Your task to perform on an android device: Open wifi settings Image 0: 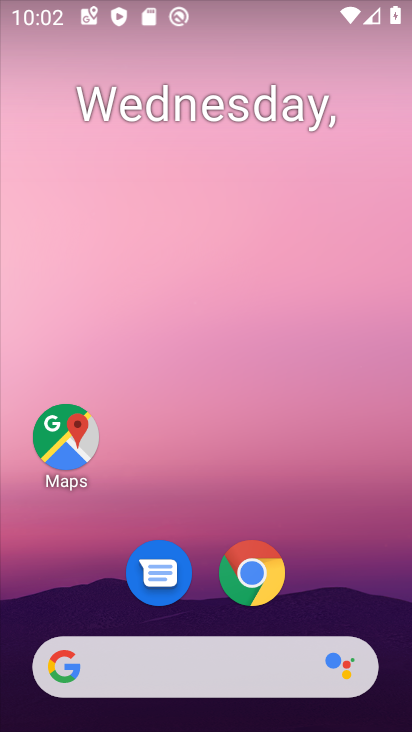
Step 0: drag from (345, 577) to (332, 207)
Your task to perform on an android device: Open wifi settings Image 1: 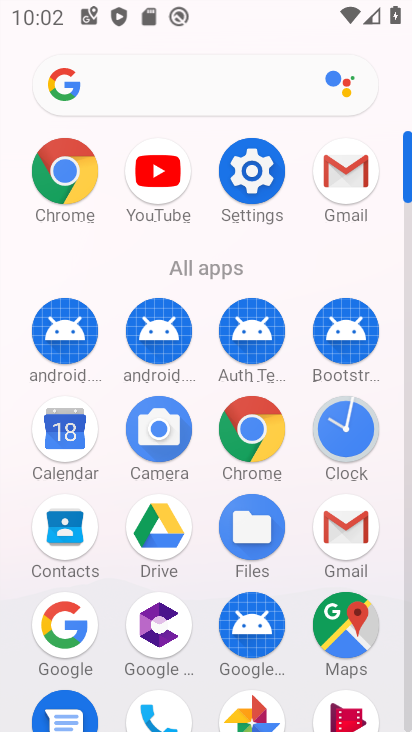
Step 1: click (265, 187)
Your task to perform on an android device: Open wifi settings Image 2: 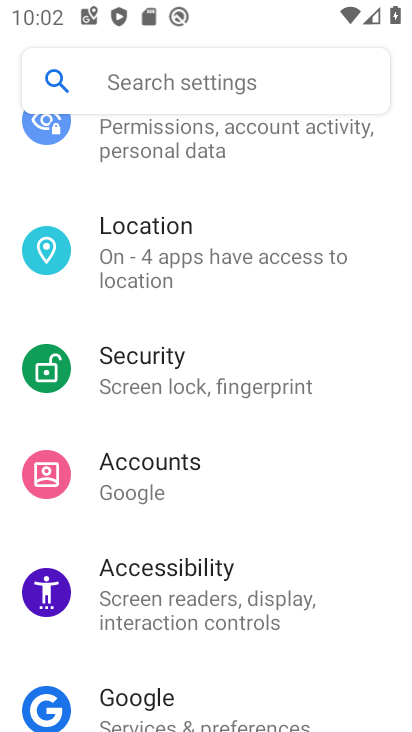
Step 2: drag from (354, 309) to (347, 493)
Your task to perform on an android device: Open wifi settings Image 3: 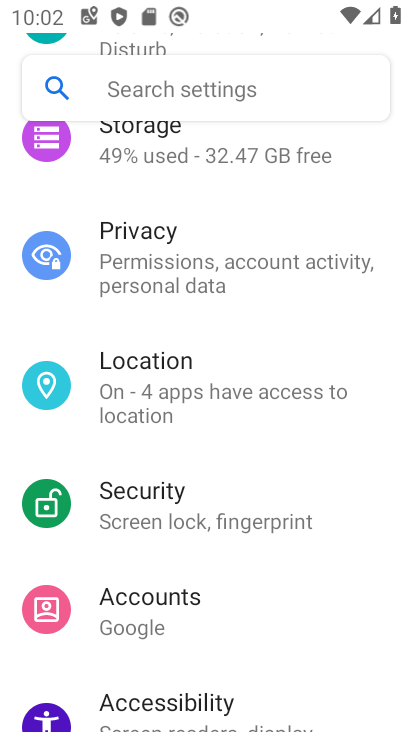
Step 3: drag from (371, 291) to (357, 495)
Your task to perform on an android device: Open wifi settings Image 4: 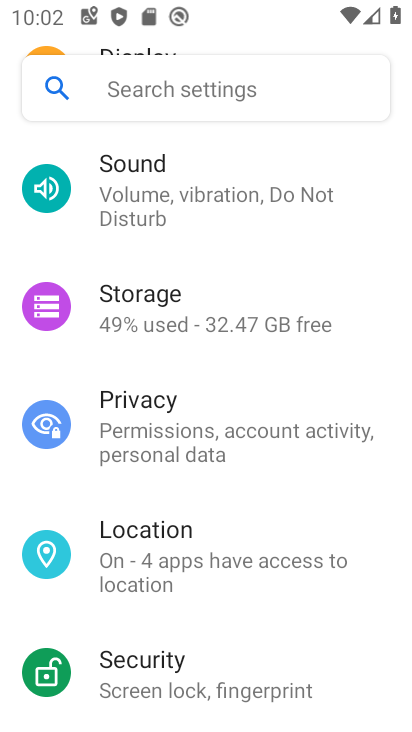
Step 4: drag from (365, 265) to (359, 468)
Your task to perform on an android device: Open wifi settings Image 5: 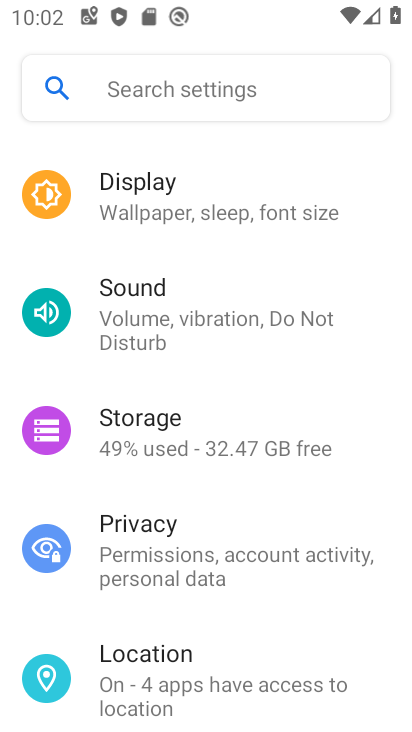
Step 5: drag from (364, 269) to (347, 453)
Your task to perform on an android device: Open wifi settings Image 6: 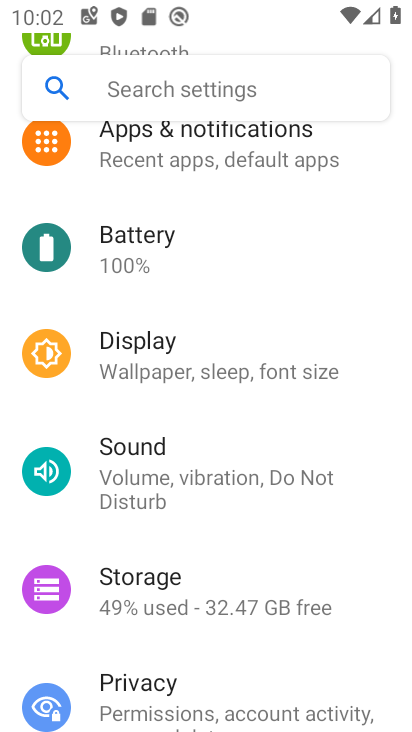
Step 6: drag from (358, 234) to (359, 413)
Your task to perform on an android device: Open wifi settings Image 7: 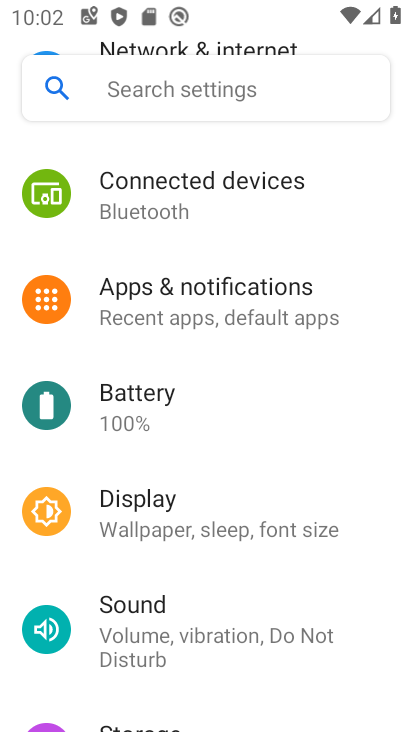
Step 7: drag from (357, 224) to (348, 416)
Your task to perform on an android device: Open wifi settings Image 8: 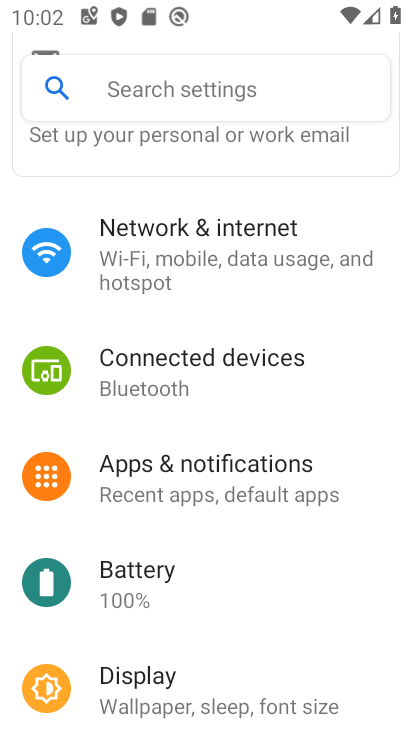
Step 8: drag from (348, 220) to (354, 370)
Your task to perform on an android device: Open wifi settings Image 9: 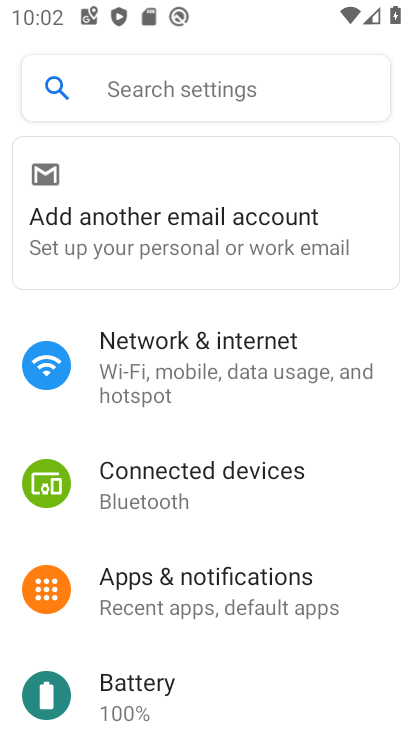
Step 9: click (281, 377)
Your task to perform on an android device: Open wifi settings Image 10: 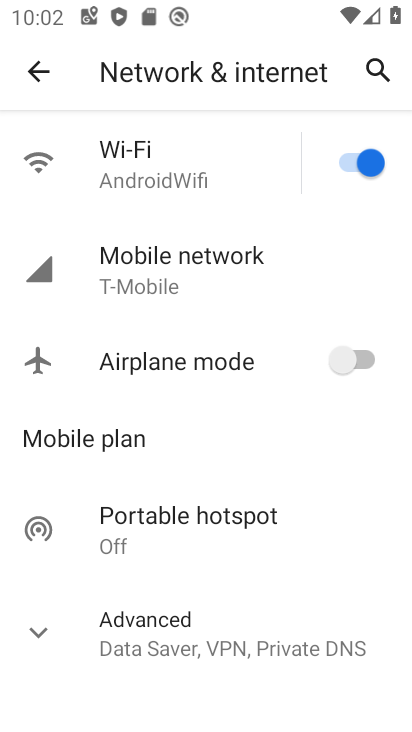
Step 10: drag from (287, 240) to (270, 395)
Your task to perform on an android device: Open wifi settings Image 11: 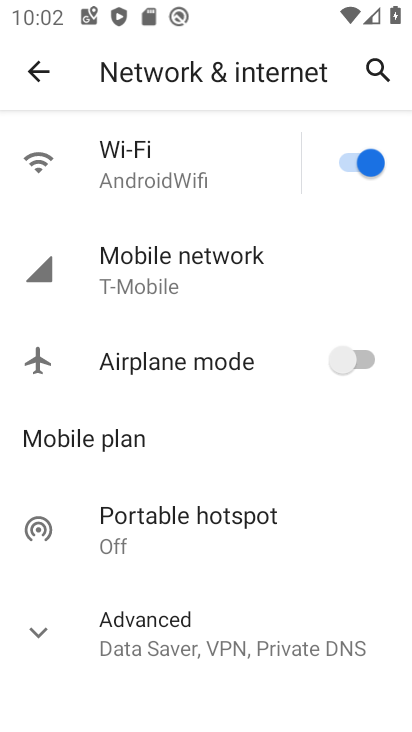
Step 11: click (199, 162)
Your task to perform on an android device: Open wifi settings Image 12: 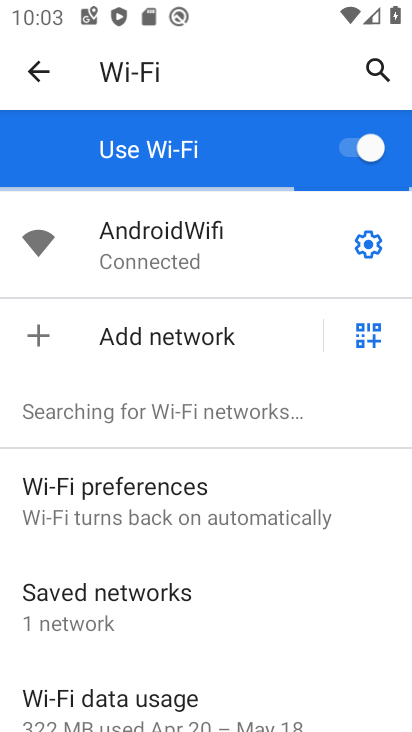
Step 12: task complete